Your task to perform on an android device: Open calendar and show me the third week of next month Image 0: 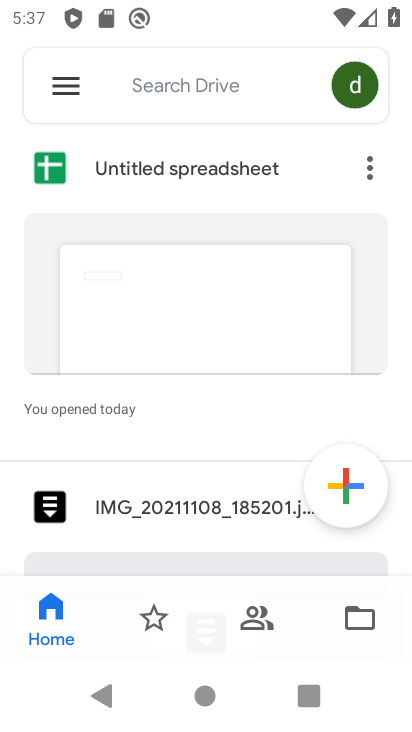
Step 0: press home button
Your task to perform on an android device: Open calendar and show me the third week of next month Image 1: 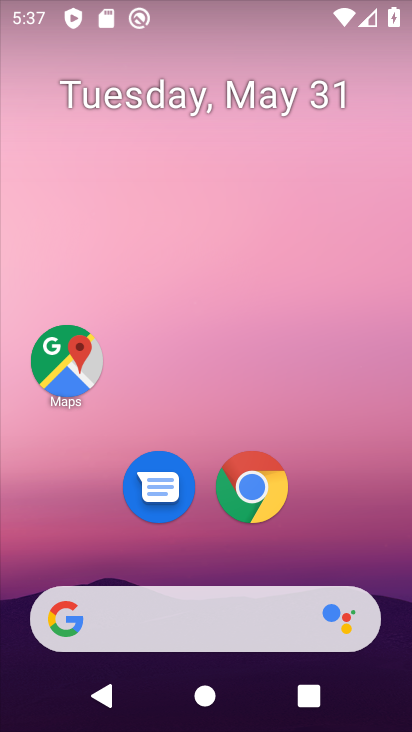
Step 1: drag from (314, 517) to (251, 122)
Your task to perform on an android device: Open calendar and show me the third week of next month Image 2: 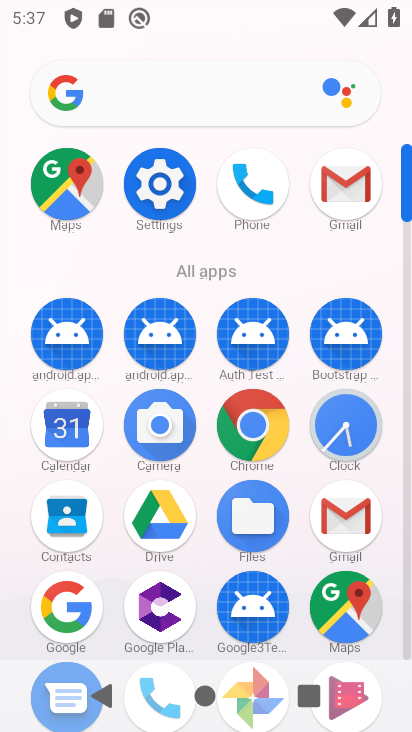
Step 2: click (65, 429)
Your task to perform on an android device: Open calendar and show me the third week of next month Image 3: 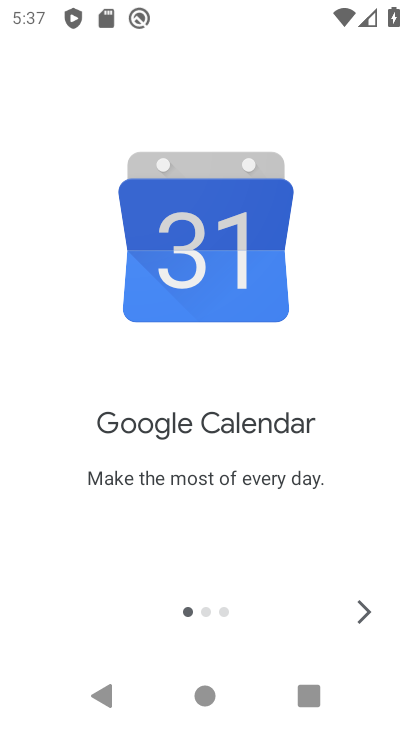
Step 3: click (364, 612)
Your task to perform on an android device: Open calendar and show me the third week of next month Image 4: 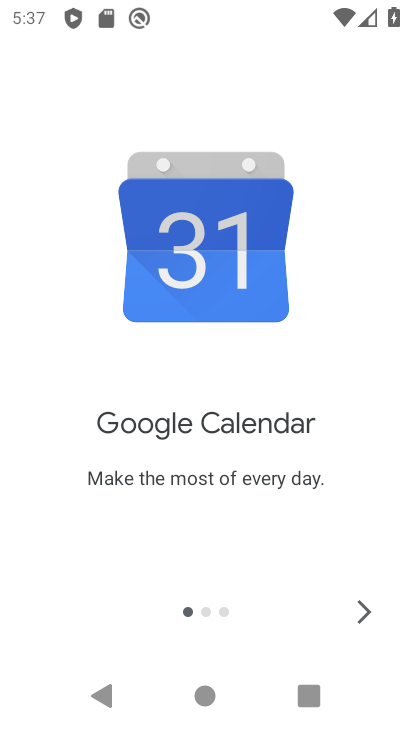
Step 4: click (364, 612)
Your task to perform on an android device: Open calendar and show me the third week of next month Image 5: 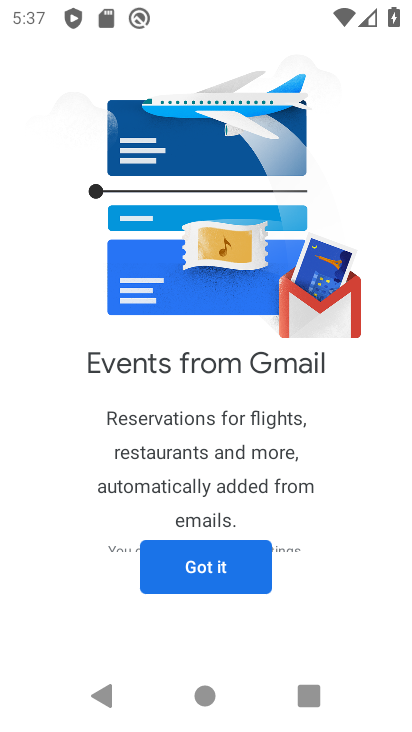
Step 5: click (202, 554)
Your task to perform on an android device: Open calendar and show me the third week of next month Image 6: 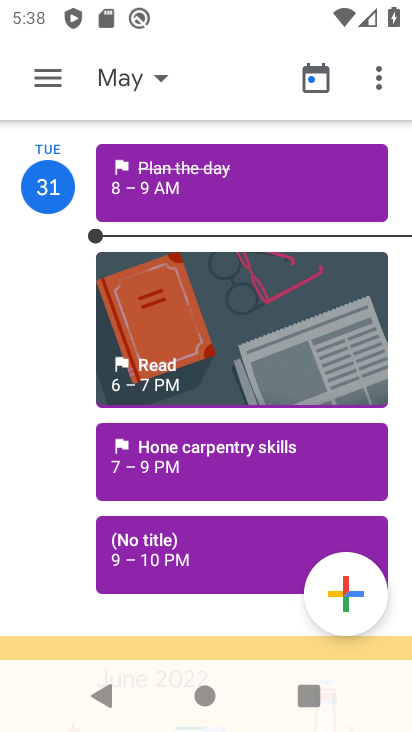
Step 6: click (44, 73)
Your task to perform on an android device: Open calendar and show me the third week of next month Image 7: 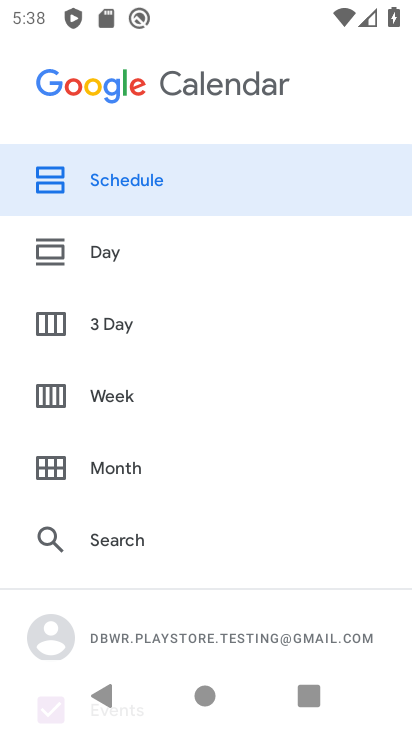
Step 7: click (97, 400)
Your task to perform on an android device: Open calendar and show me the third week of next month Image 8: 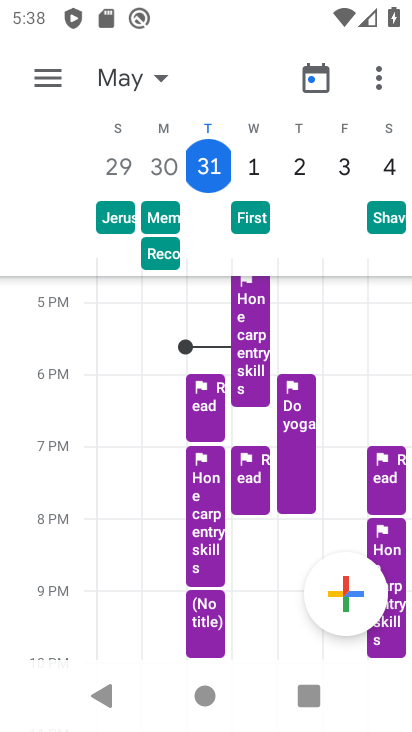
Step 8: click (150, 82)
Your task to perform on an android device: Open calendar and show me the third week of next month Image 9: 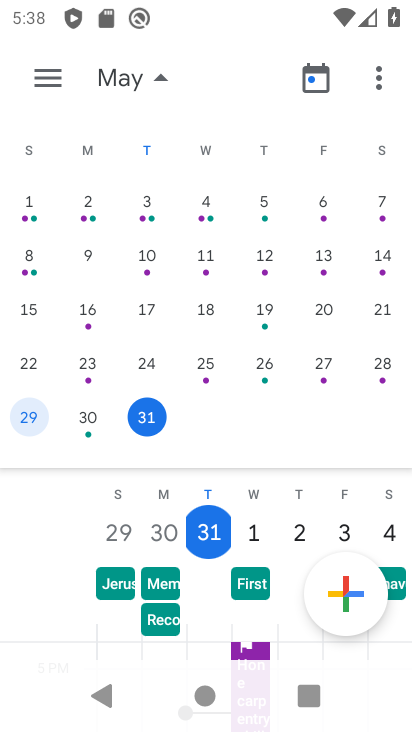
Step 9: drag from (331, 251) to (1, 267)
Your task to perform on an android device: Open calendar and show me the third week of next month Image 10: 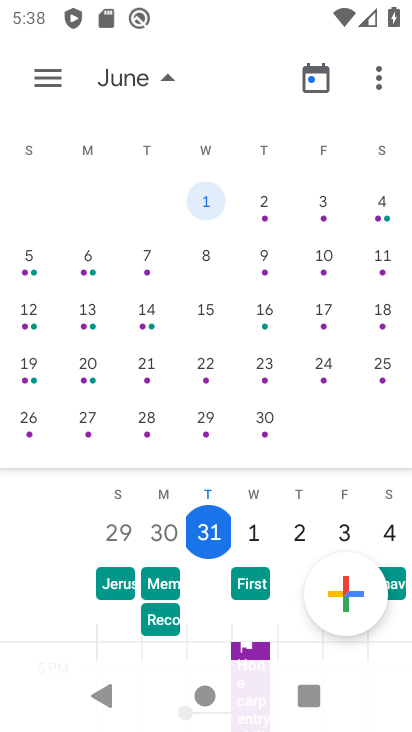
Step 10: click (201, 320)
Your task to perform on an android device: Open calendar and show me the third week of next month Image 11: 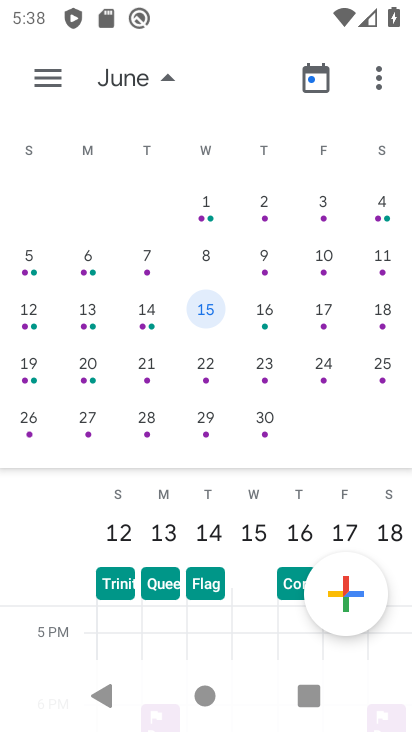
Step 11: task complete